Your task to perform on an android device: Open display settings Image 0: 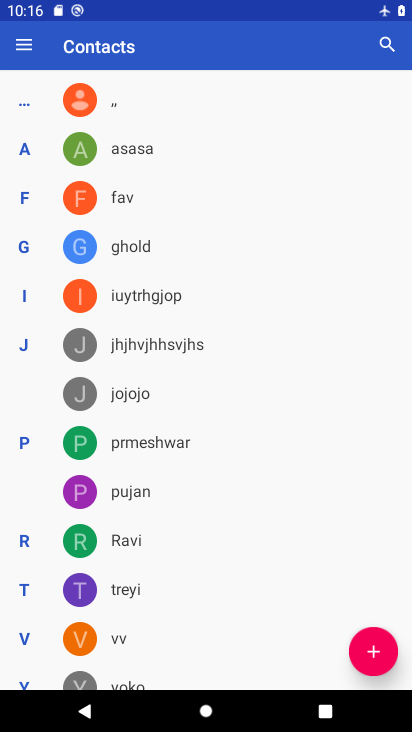
Step 0: press home button
Your task to perform on an android device: Open display settings Image 1: 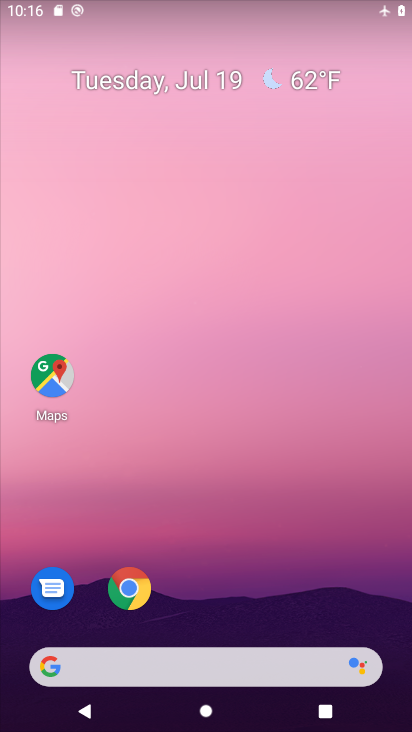
Step 1: drag from (191, 621) to (179, 101)
Your task to perform on an android device: Open display settings Image 2: 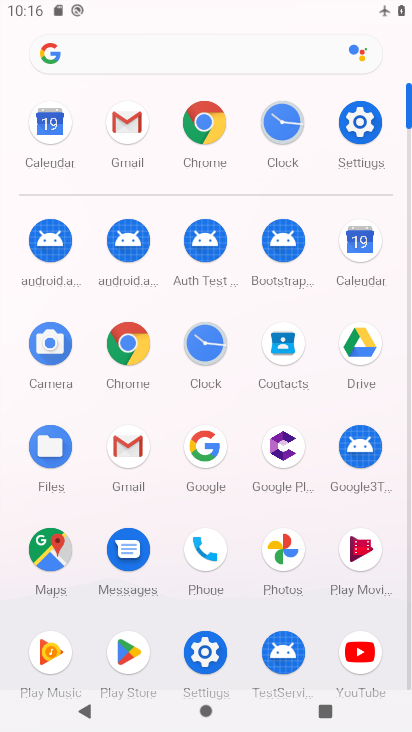
Step 2: click (369, 124)
Your task to perform on an android device: Open display settings Image 3: 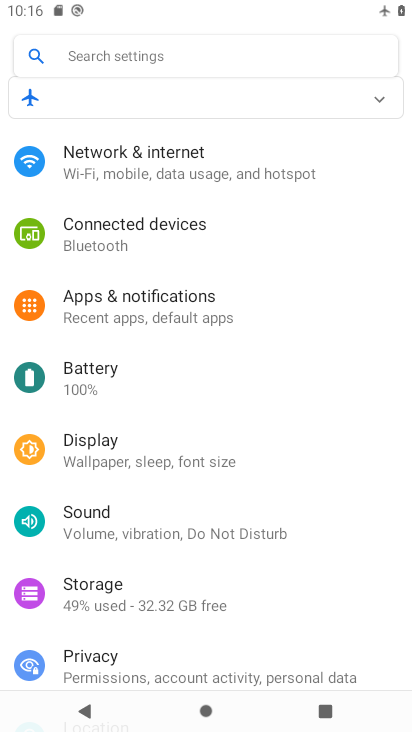
Step 3: click (109, 459)
Your task to perform on an android device: Open display settings Image 4: 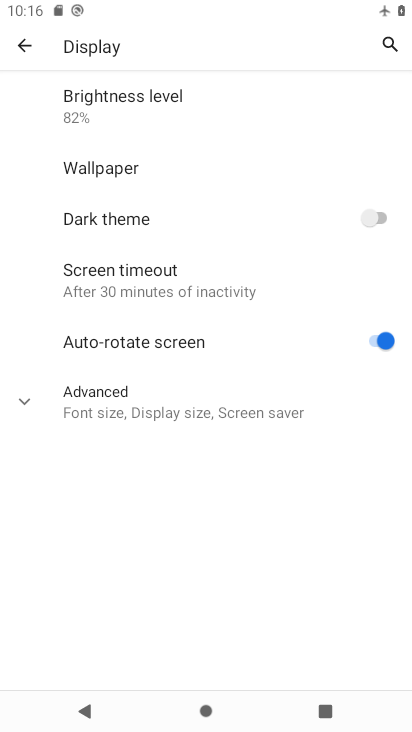
Step 4: task complete